Your task to perform on an android device: delete browsing data in the chrome app Image 0: 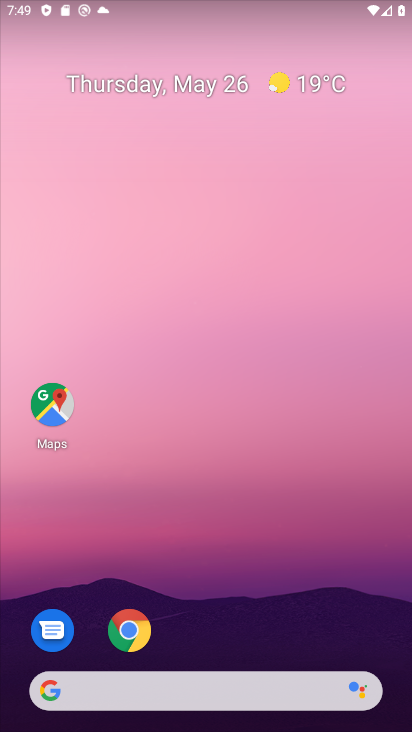
Step 0: click (129, 629)
Your task to perform on an android device: delete browsing data in the chrome app Image 1: 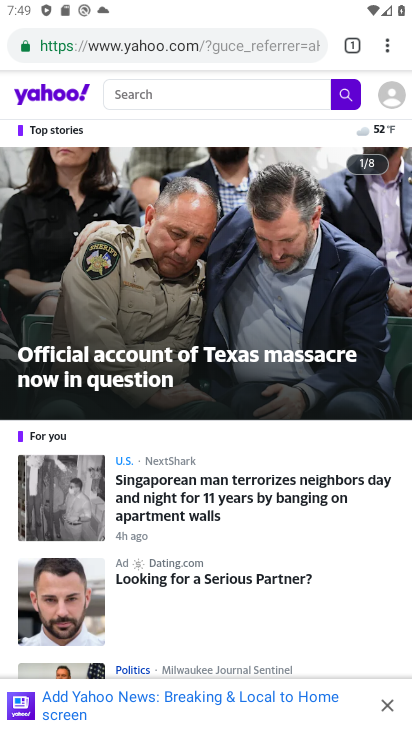
Step 1: click (387, 47)
Your task to perform on an android device: delete browsing data in the chrome app Image 2: 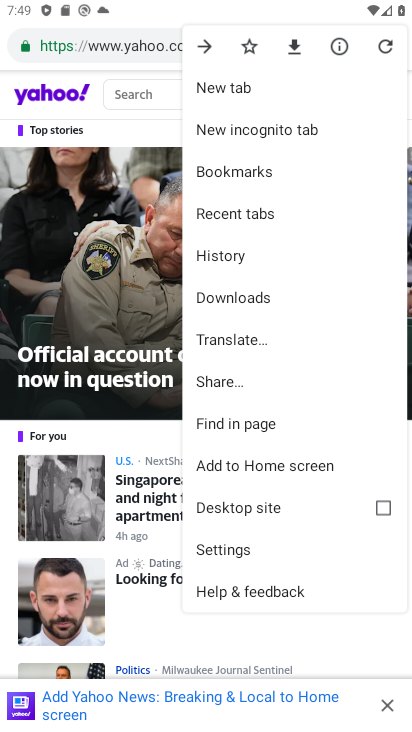
Step 2: click (242, 554)
Your task to perform on an android device: delete browsing data in the chrome app Image 3: 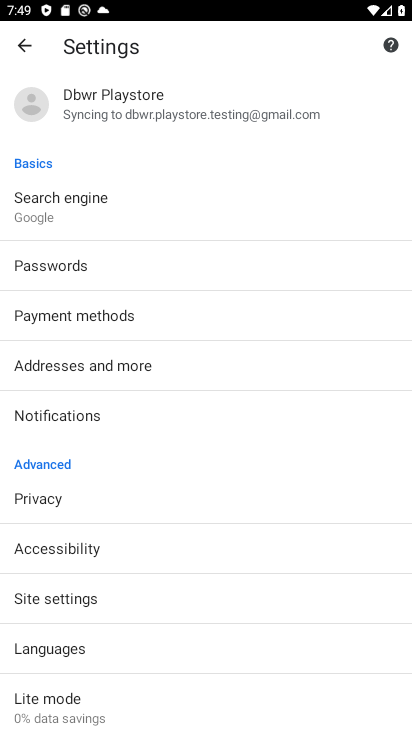
Step 3: click (40, 496)
Your task to perform on an android device: delete browsing data in the chrome app Image 4: 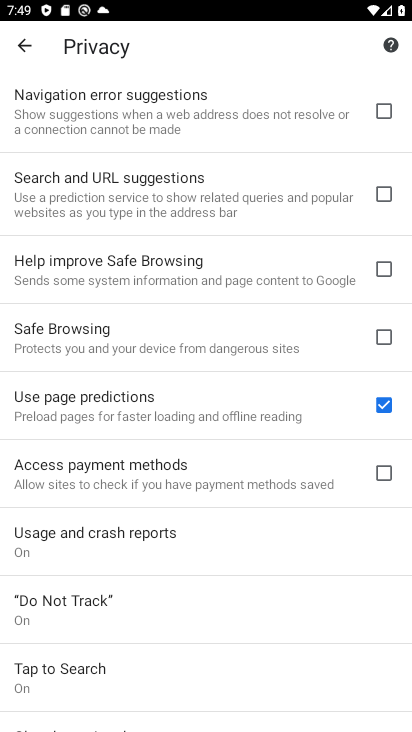
Step 4: drag from (154, 622) to (169, 532)
Your task to perform on an android device: delete browsing data in the chrome app Image 5: 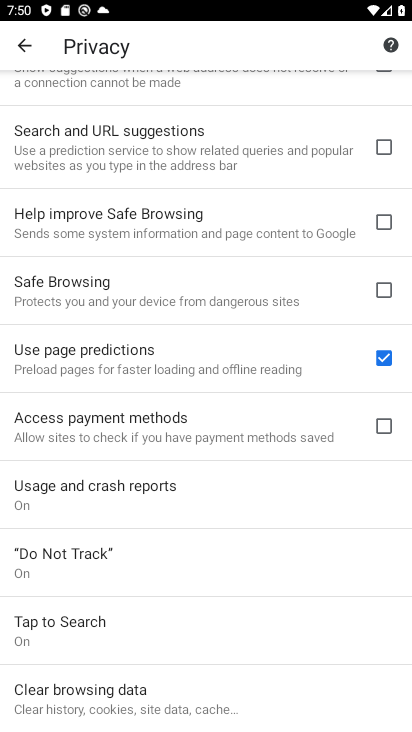
Step 5: click (91, 706)
Your task to perform on an android device: delete browsing data in the chrome app Image 6: 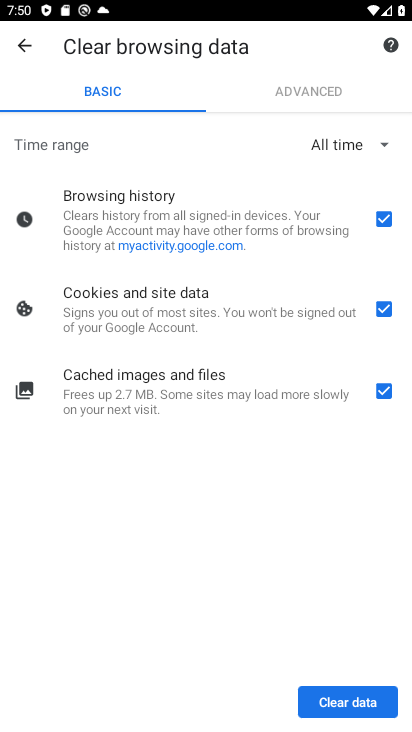
Step 6: click (345, 709)
Your task to perform on an android device: delete browsing data in the chrome app Image 7: 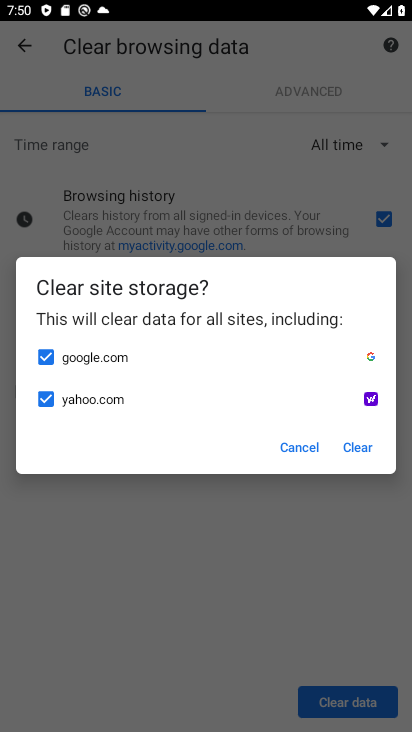
Step 7: click (360, 440)
Your task to perform on an android device: delete browsing data in the chrome app Image 8: 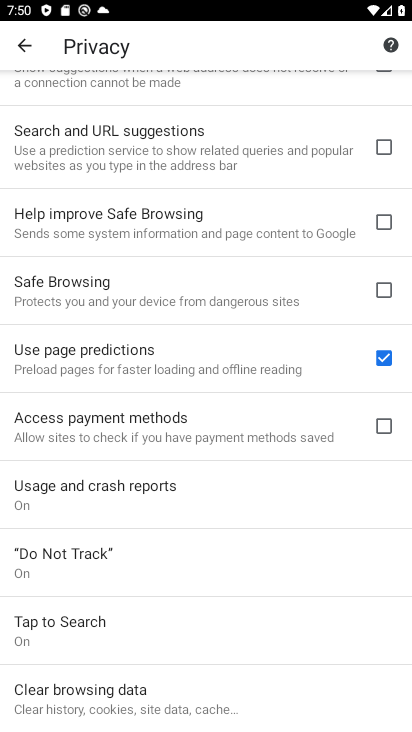
Step 8: task complete